Your task to perform on an android device: allow notifications from all sites in the chrome app Image 0: 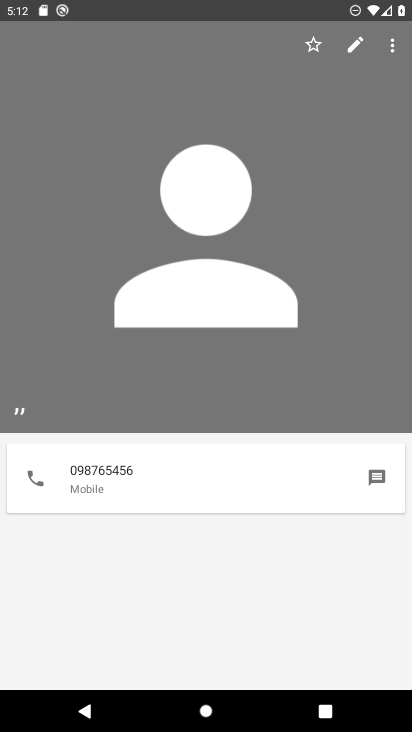
Step 0: press home button
Your task to perform on an android device: allow notifications from all sites in the chrome app Image 1: 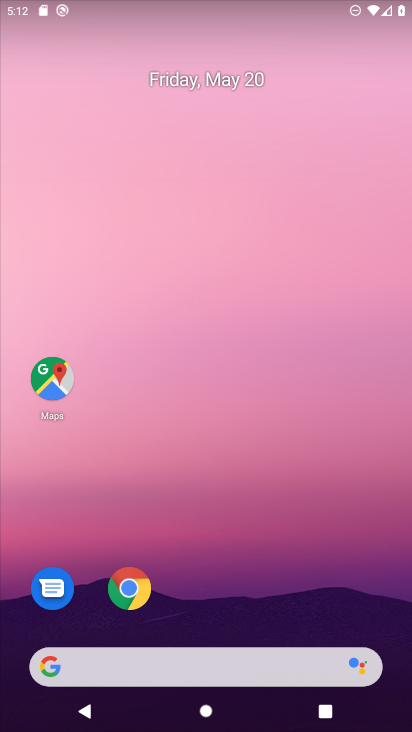
Step 1: click (135, 594)
Your task to perform on an android device: allow notifications from all sites in the chrome app Image 2: 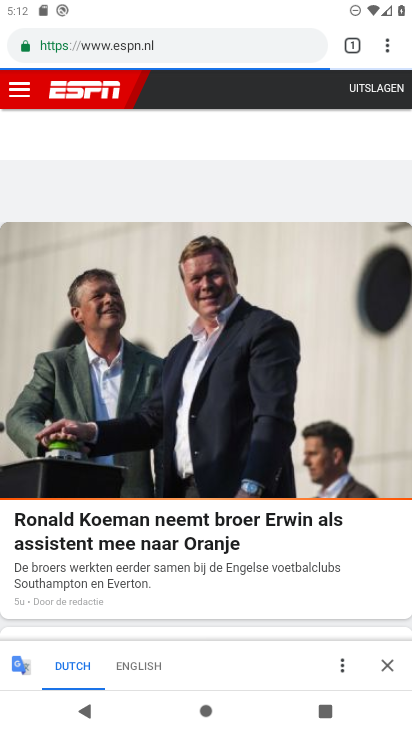
Step 2: click (383, 47)
Your task to perform on an android device: allow notifications from all sites in the chrome app Image 3: 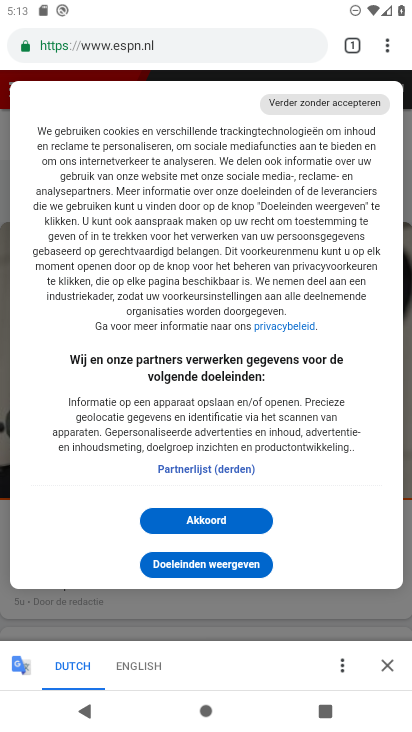
Step 3: click (388, 51)
Your task to perform on an android device: allow notifications from all sites in the chrome app Image 4: 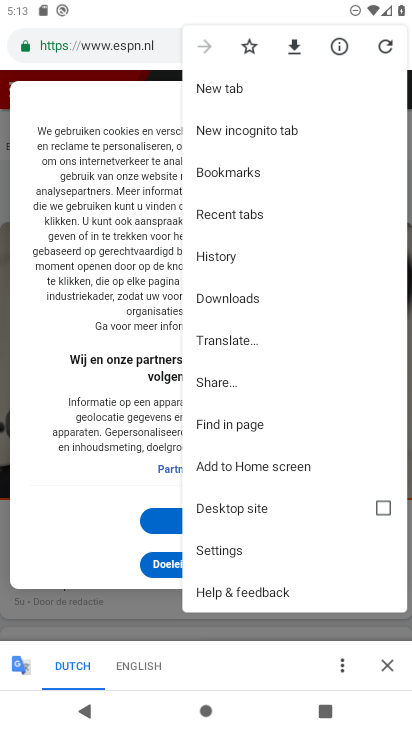
Step 4: click (228, 553)
Your task to perform on an android device: allow notifications from all sites in the chrome app Image 5: 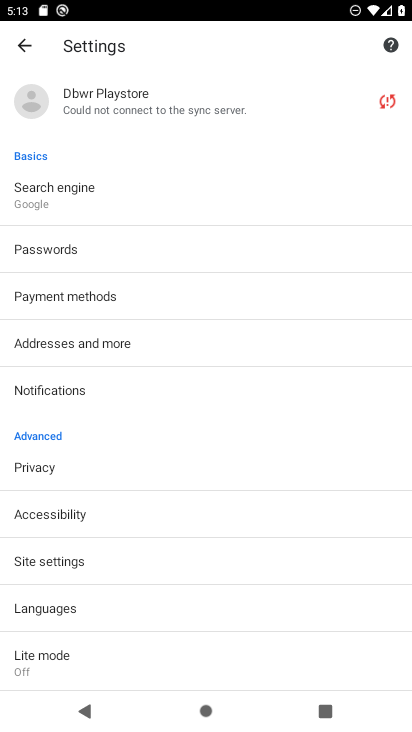
Step 5: click (54, 564)
Your task to perform on an android device: allow notifications from all sites in the chrome app Image 6: 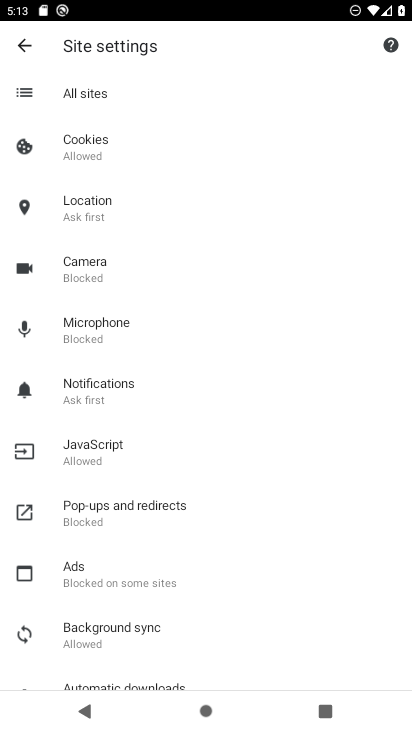
Step 6: click (102, 109)
Your task to perform on an android device: allow notifications from all sites in the chrome app Image 7: 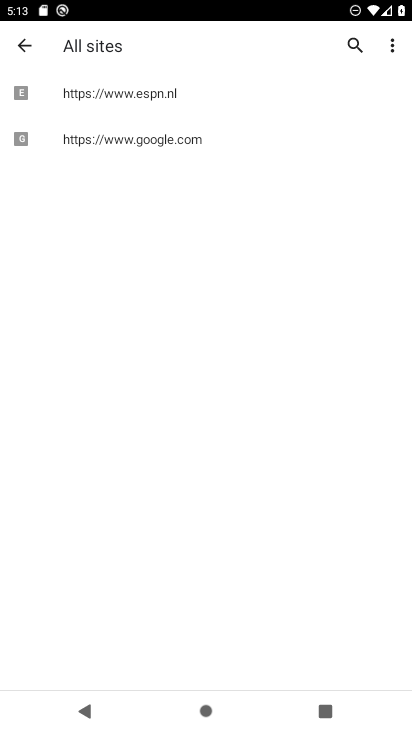
Step 7: click (130, 141)
Your task to perform on an android device: allow notifications from all sites in the chrome app Image 8: 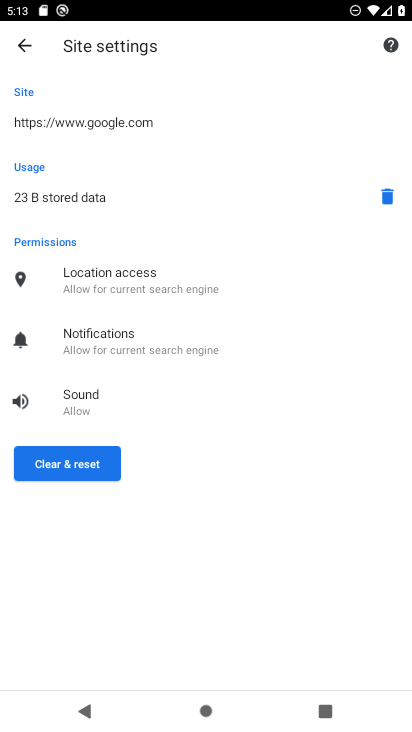
Step 8: click (109, 340)
Your task to perform on an android device: allow notifications from all sites in the chrome app Image 9: 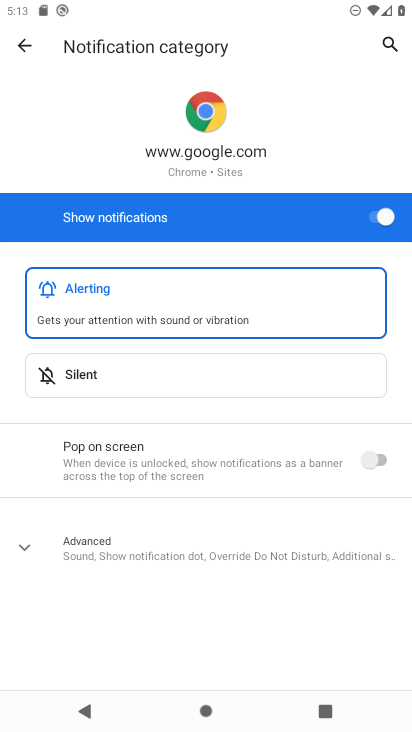
Step 9: task complete